Your task to perform on an android device: Show me recent news Image 0: 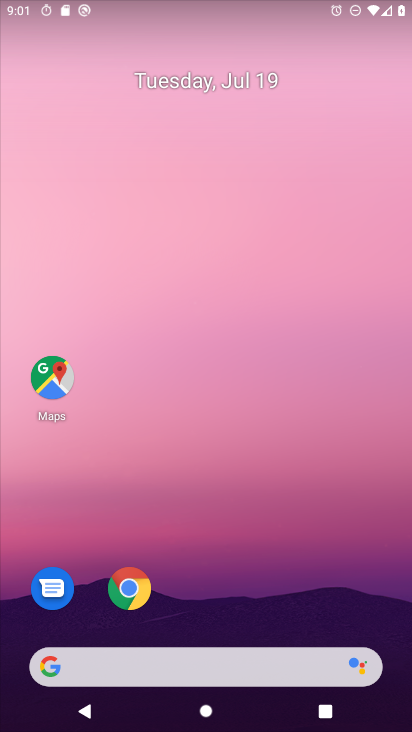
Step 0: drag from (244, 552) to (167, 186)
Your task to perform on an android device: Show me recent news Image 1: 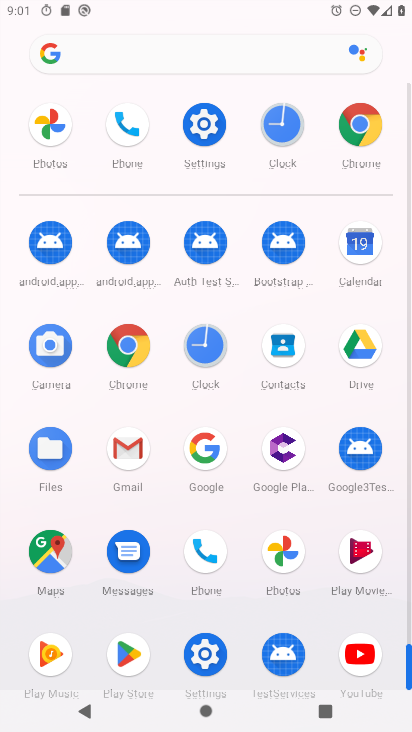
Step 1: click (211, 463)
Your task to perform on an android device: Show me recent news Image 2: 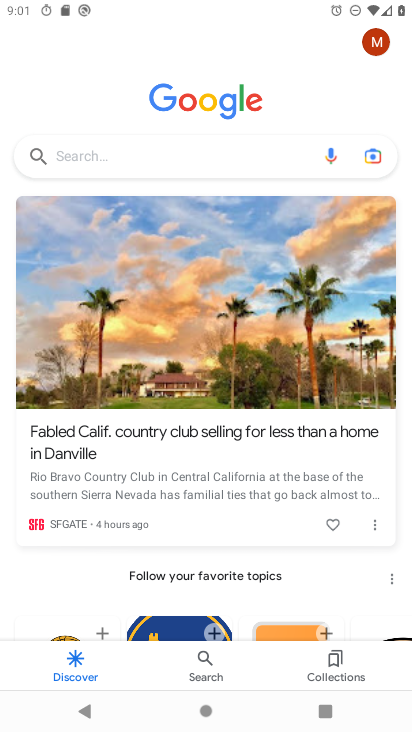
Step 2: task complete